Your task to perform on an android device: turn vacation reply on in the gmail app Image 0: 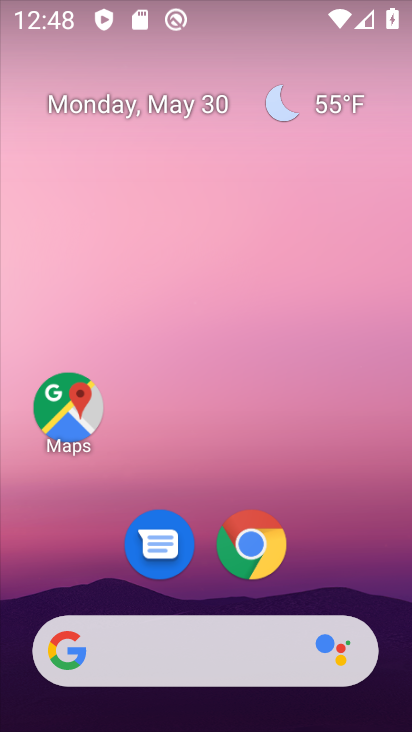
Step 0: drag from (336, 579) to (307, 24)
Your task to perform on an android device: turn vacation reply on in the gmail app Image 1: 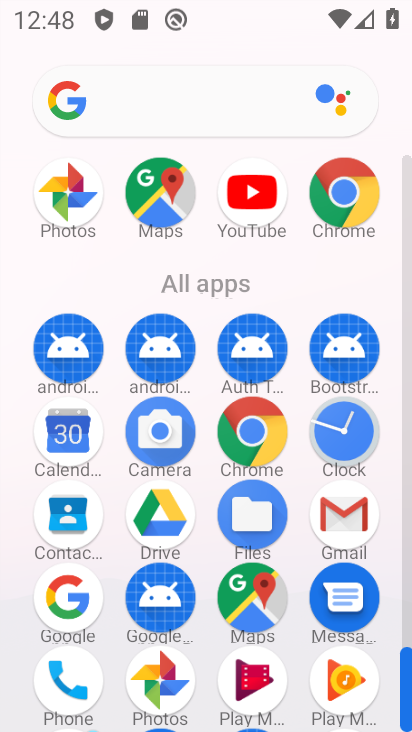
Step 1: click (354, 515)
Your task to perform on an android device: turn vacation reply on in the gmail app Image 2: 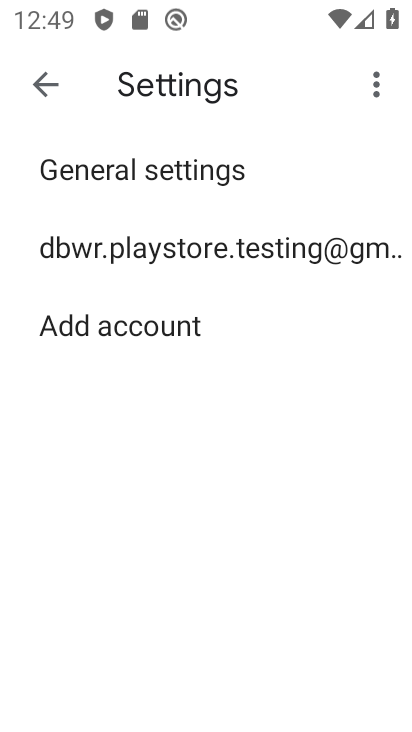
Step 2: click (86, 237)
Your task to perform on an android device: turn vacation reply on in the gmail app Image 3: 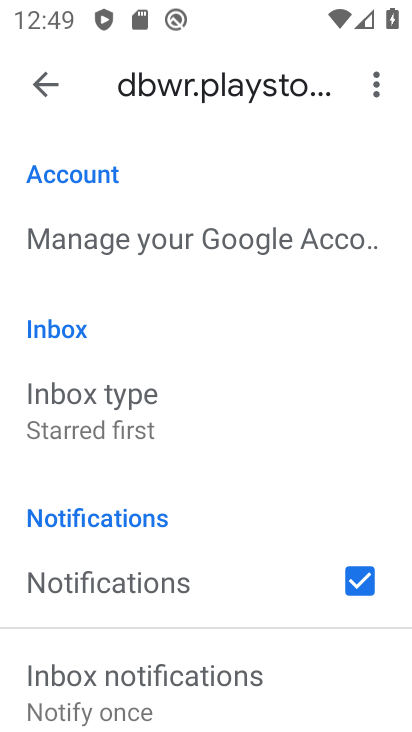
Step 3: drag from (205, 579) to (182, 202)
Your task to perform on an android device: turn vacation reply on in the gmail app Image 4: 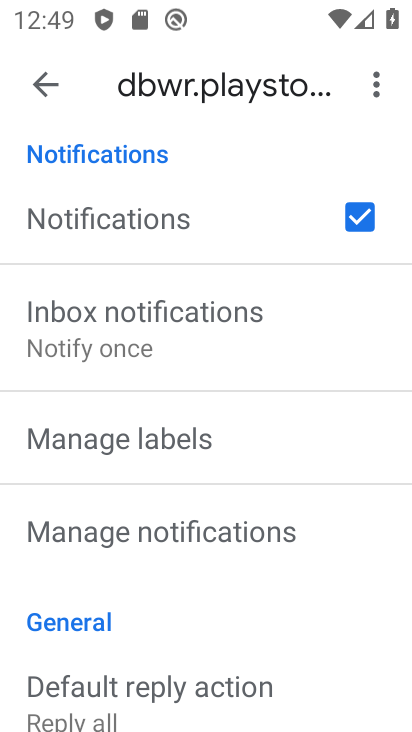
Step 4: drag from (191, 595) to (158, 99)
Your task to perform on an android device: turn vacation reply on in the gmail app Image 5: 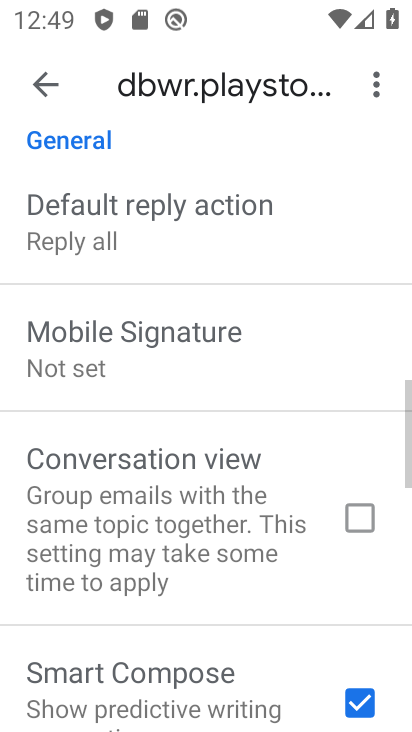
Step 5: drag from (180, 576) to (180, 274)
Your task to perform on an android device: turn vacation reply on in the gmail app Image 6: 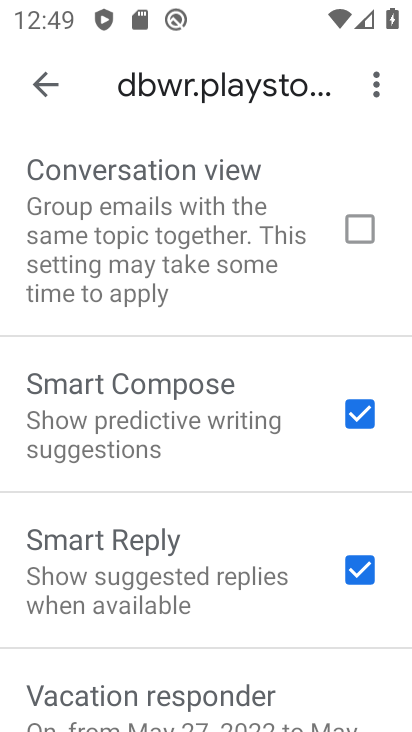
Step 6: drag from (164, 662) to (154, 413)
Your task to perform on an android device: turn vacation reply on in the gmail app Image 7: 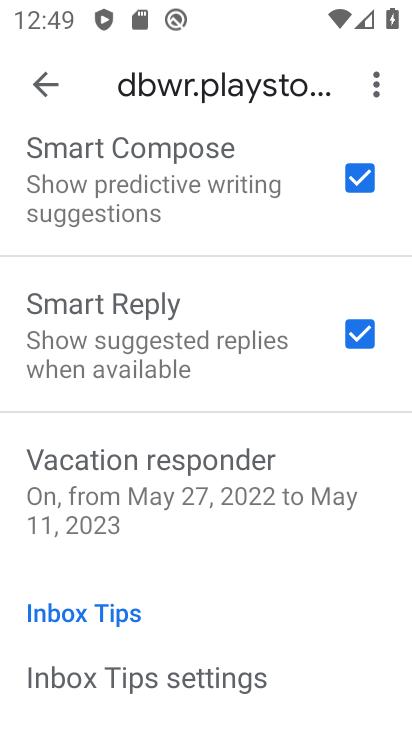
Step 7: click (153, 459)
Your task to perform on an android device: turn vacation reply on in the gmail app Image 8: 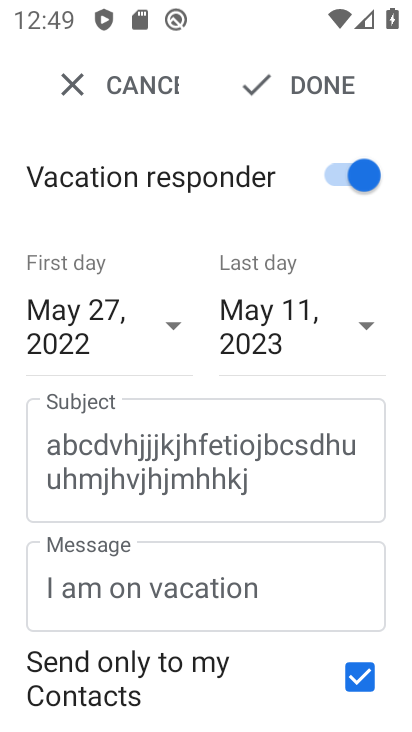
Step 8: click (322, 66)
Your task to perform on an android device: turn vacation reply on in the gmail app Image 9: 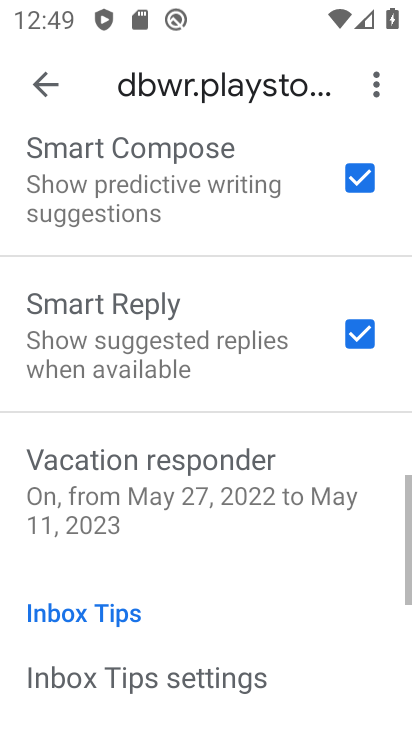
Step 9: task complete